Your task to perform on an android device: search for starred emails in the gmail app Image 0: 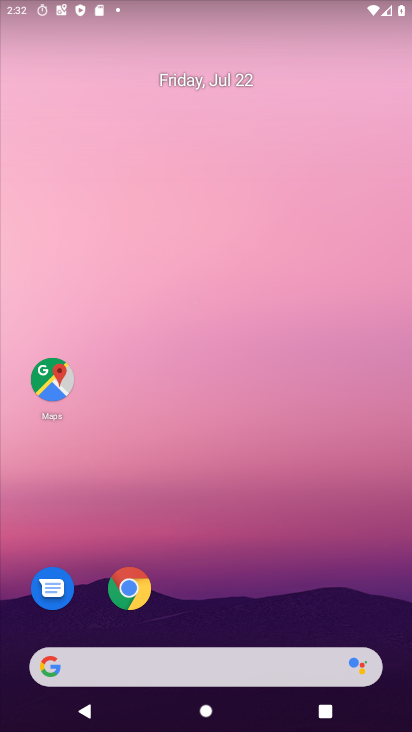
Step 0: drag from (200, 627) to (188, 87)
Your task to perform on an android device: search for starred emails in the gmail app Image 1: 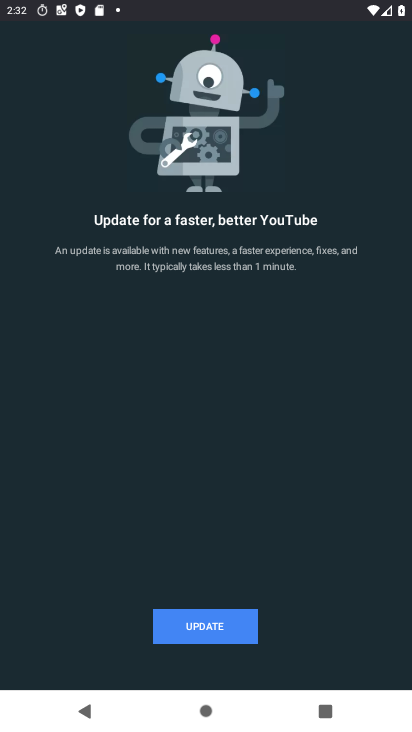
Step 1: press home button
Your task to perform on an android device: search for starred emails in the gmail app Image 2: 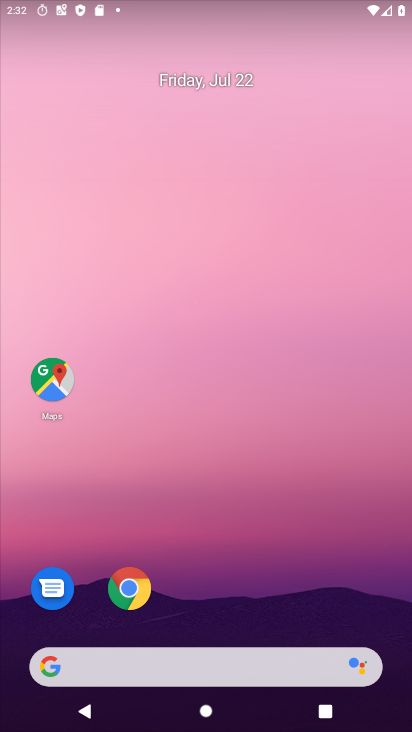
Step 2: drag from (230, 599) to (255, 93)
Your task to perform on an android device: search for starred emails in the gmail app Image 3: 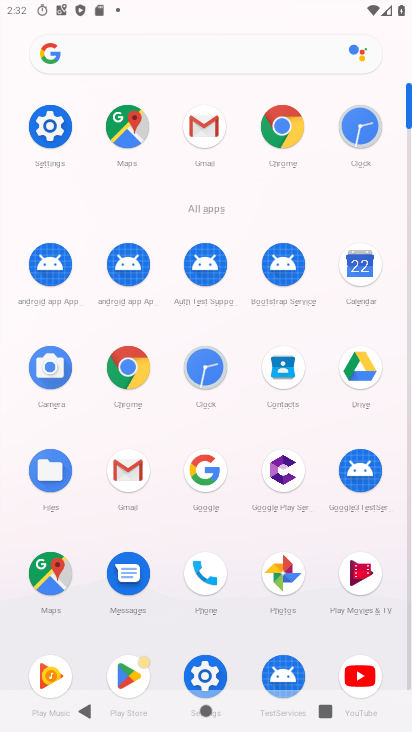
Step 3: click (206, 120)
Your task to perform on an android device: search for starred emails in the gmail app Image 4: 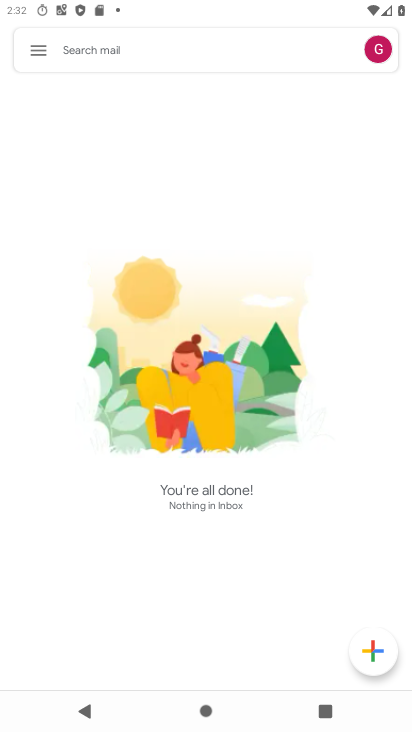
Step 4: click (28, 50)
Your task to perform on an android device: search for starred emails in the gmail app Image 5: 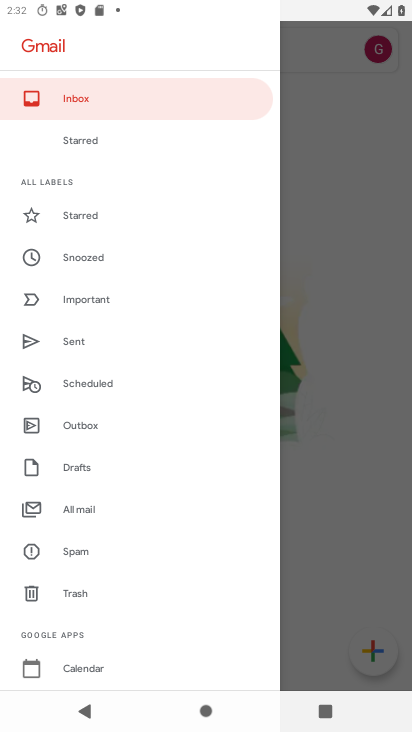
Step 5: click (95, 218)
Your task to perform on an android device: search for starred emails in the gmail app Image 6: 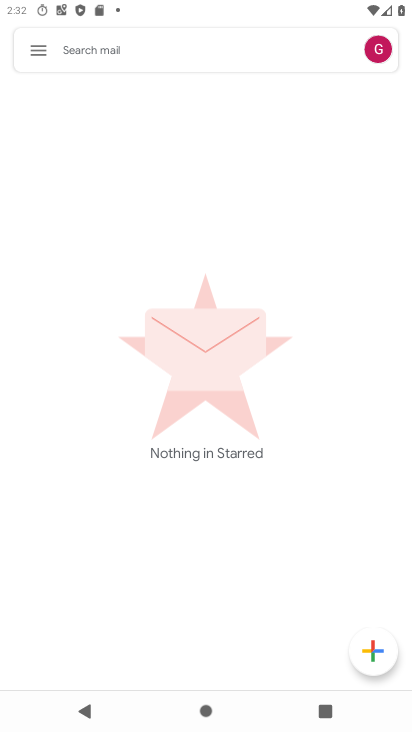
Step 6: task complete